Your task to perform on an android device: turn on airplane mode Image 0: 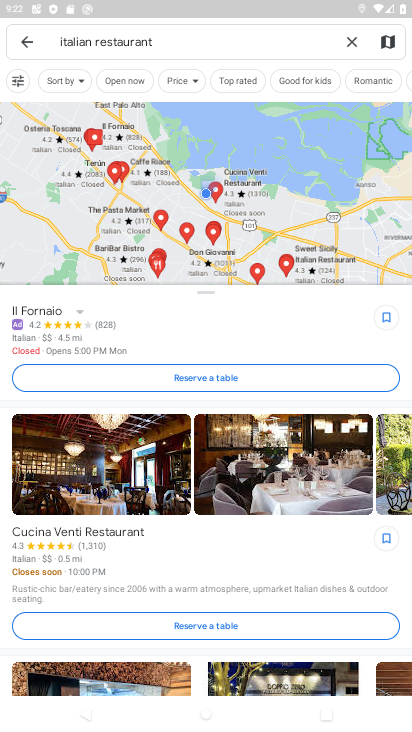
Step 0: press home button
Your task to perform on an android device: turn on airplane mode Image 1: 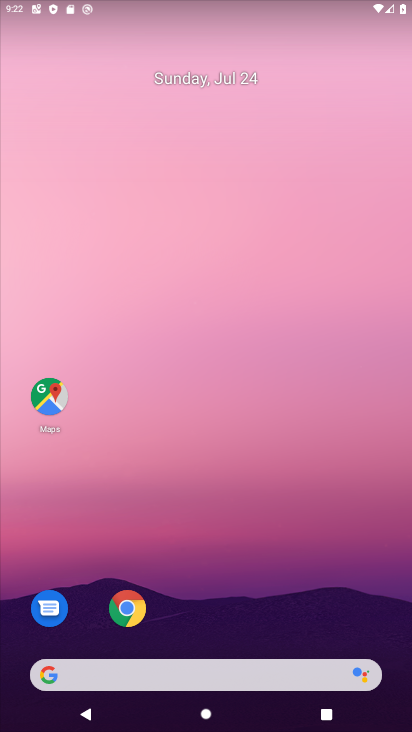
Step 1: drag from (249, 5) to (228, 453)
Your task to perform on an android device: turn on airplane mode Image 2: 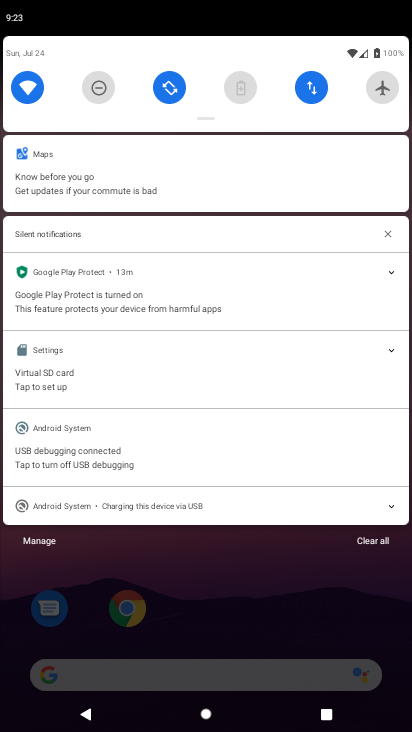
Step 2: click (380, 83)
Your task to perform on an android device: turn on airplane mode Image 3: 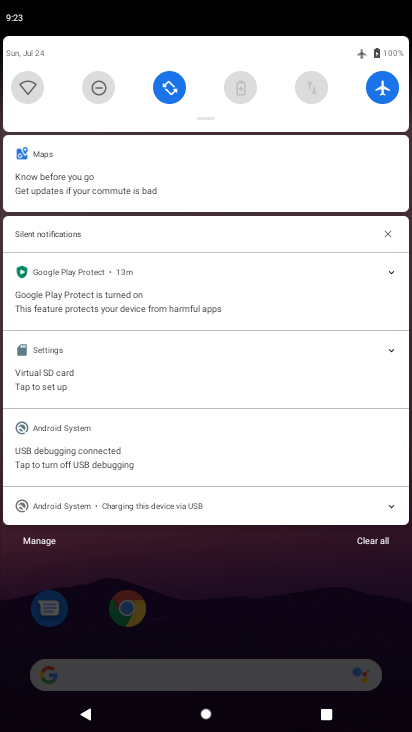
Step 3: task complete